Your task to perform on an android device: open a bookmark in the chrome app Image 0: 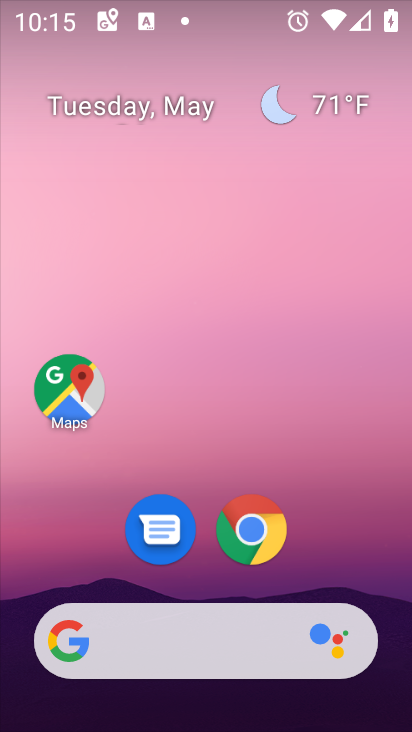
Step 0: drag from (285, 610) to (326, 191)
Your task to perform on an android device: open a bookmark in the chrome app Image 1: 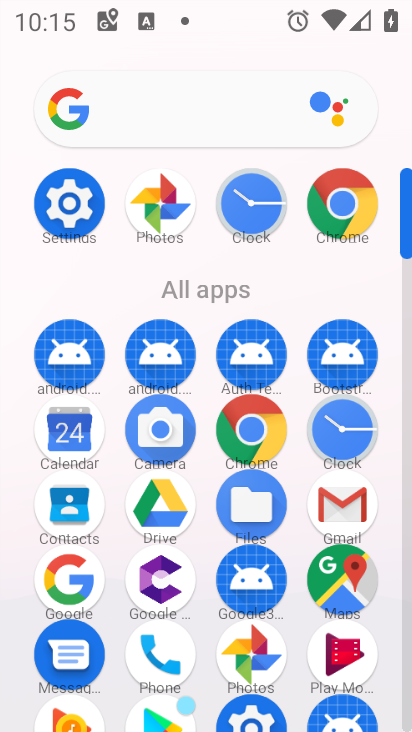
Step 1: click (354, 217)
Your task to perform on an android device: open a bookmark in the chrome app Image 2: 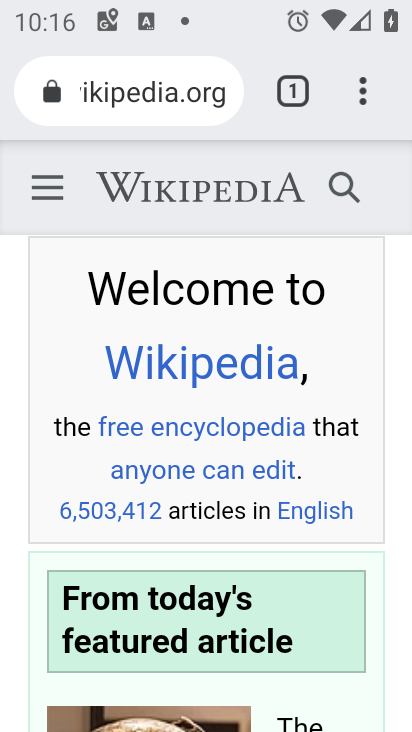
Step 2: click (369, 90)
Your task to perform on an android device: open a bookmark in the chrome app Image 3: 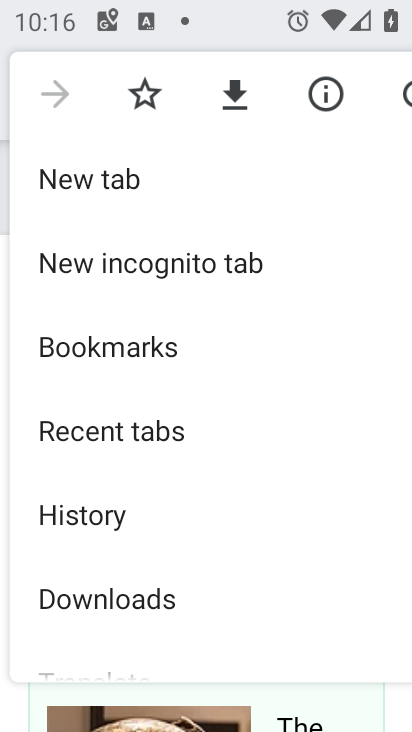
Step 3: click (94, 347)
Your task to perform on an android device: open a bookmark in the chrome app Image 4: 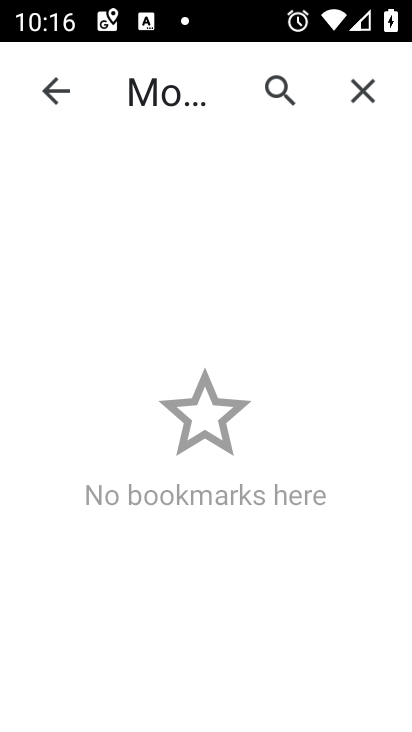
Step 4: task complete